Your task to perform on an android device: toggle improve location accuracy Image 0: 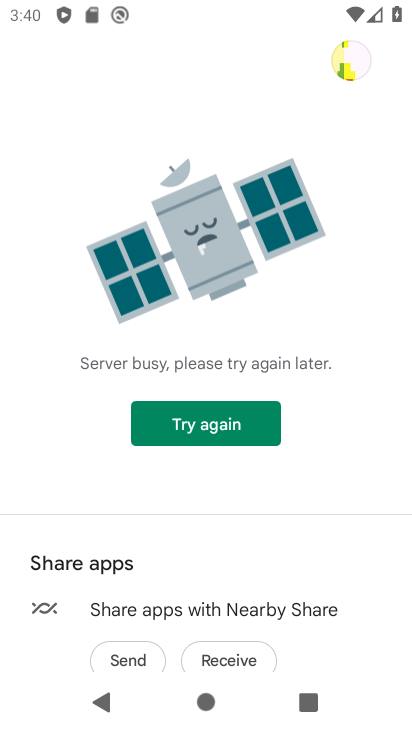
Step 0: press home button
Your task to perform on an android device: toggle improve location accuracy Image 1: 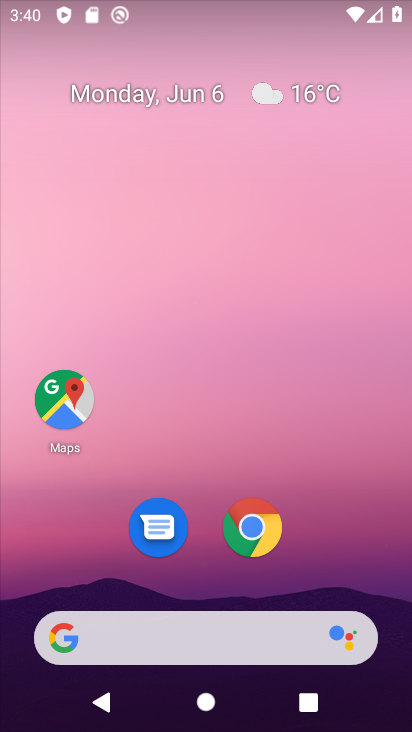
Step 1: drag from (348, 445) to (354, 67)
Your task to perform on an android device: toggle improve location accuracy Image 2: 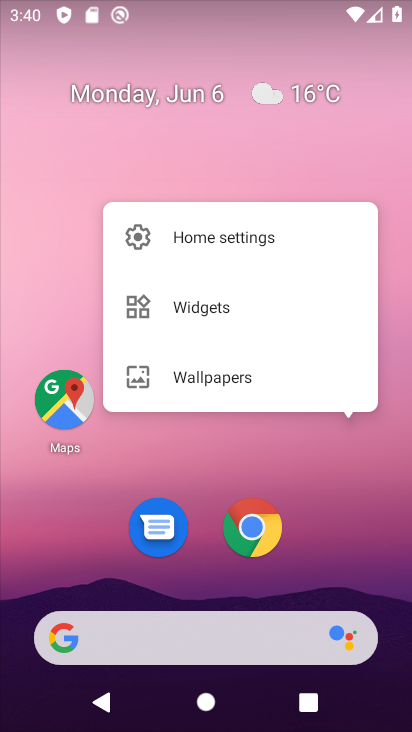
Step 2: click (364, 542)
Your task to perform on an android device: toggle improve location accuracy Image 3: 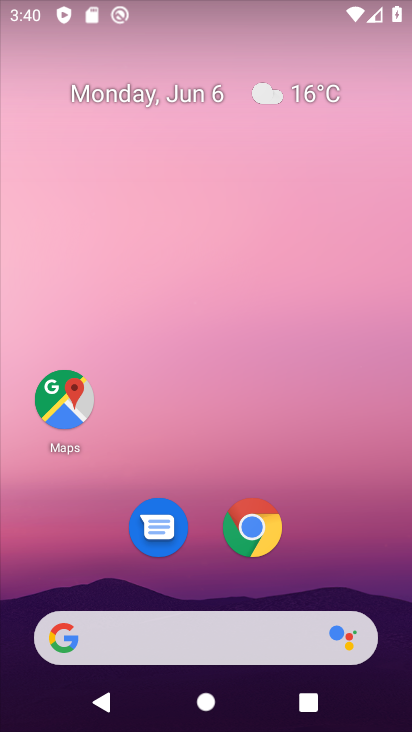
Step 3: drag from (364, 542) to (349, 132)
Your task to perform on an android device: toggle improve location accuracy Image 4: 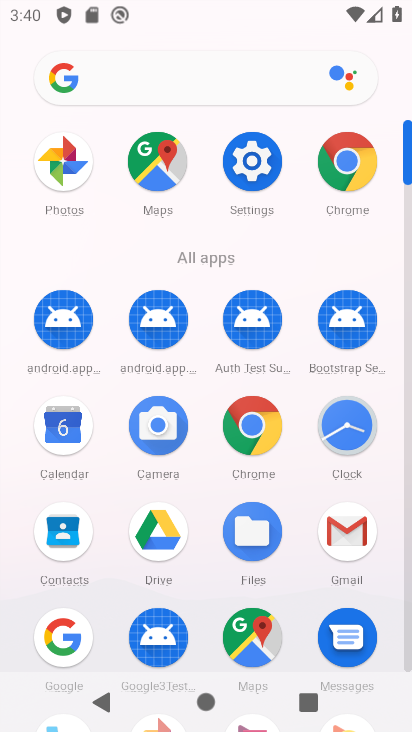
Step 4: click (256, 168)
Your task to perform on an android device: toggle improve location accuracy Image 5: 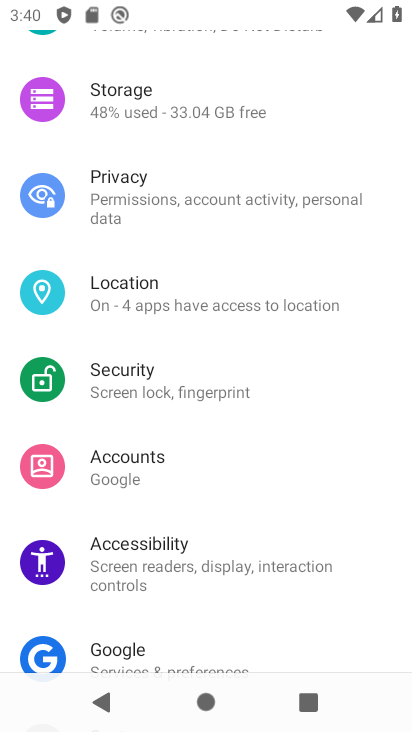
Step 5: click (171, 290)
Your task to perform on an android device: toggle improve location accuracy Image 6: 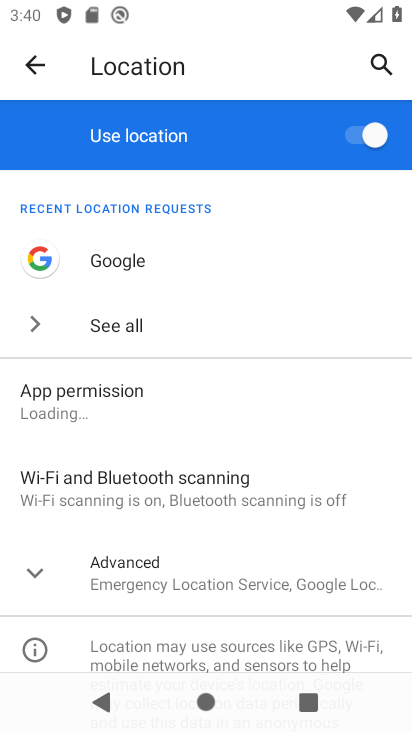
Step 6: click (303, 576)
Your task to perform on an android device: toggle improve location accuracy Image 7: 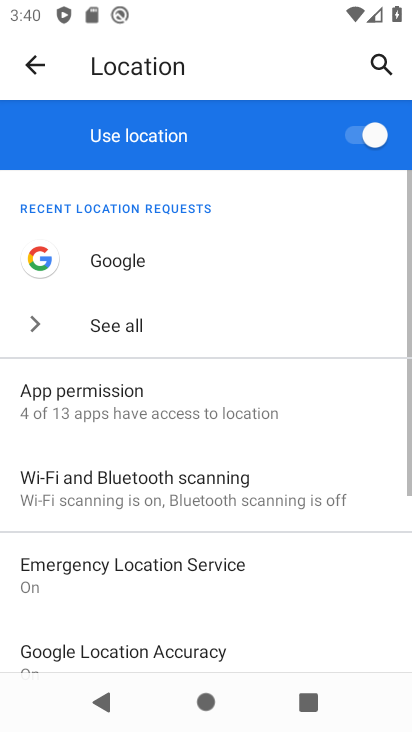
Step 7: click (230, 654)
Your task to perform on an android device: toggle improve location accuracy Image 8: 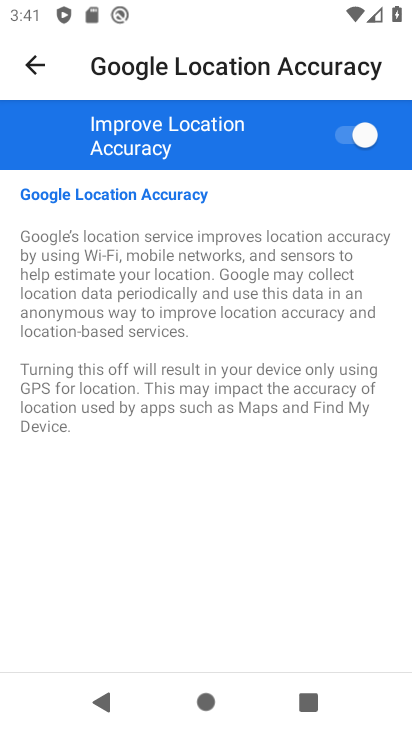
Step 8: click (356, 122)
Your task to perform on an android device: toggle improve location accuracy Image 9: 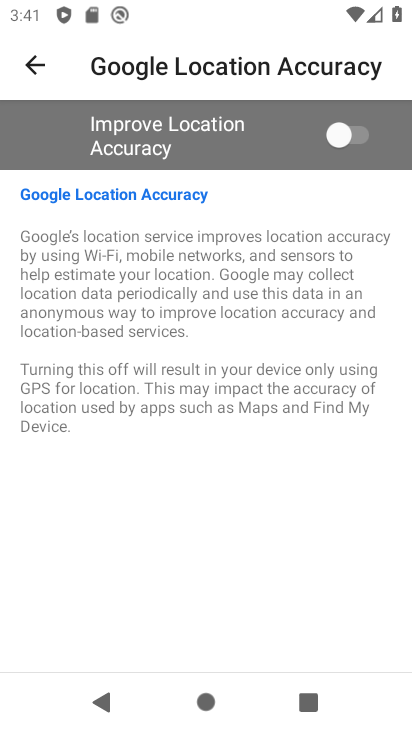
Step 9: task complete